Your task to perform on an android device: turn off wifi Image 0: 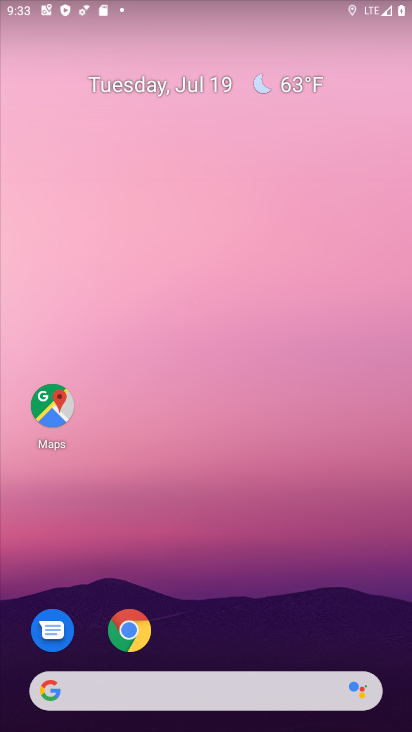
Step 0: drag from (208, 698) to (162, 68)
Your task to perform on an android device: turn off wifi Image 1: 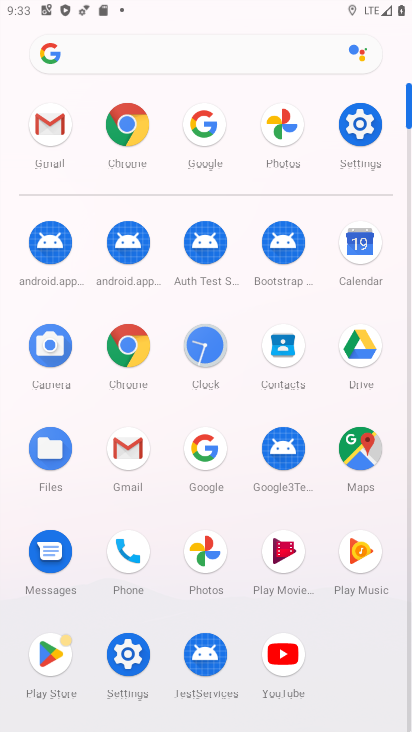
Step 1: click (361, 122)
Your task to perform on an android device: turn off wifi Image 2: 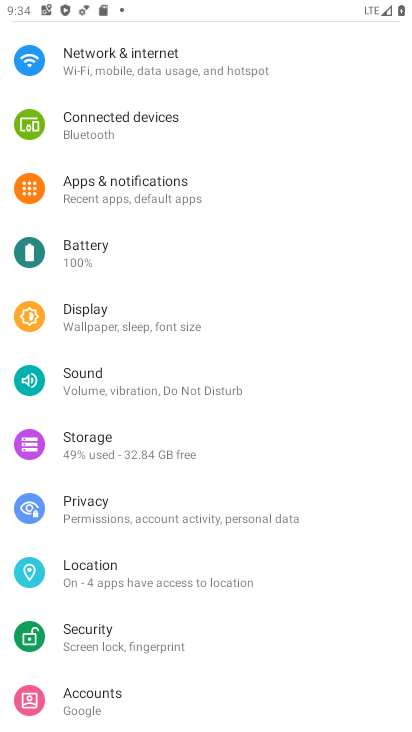
Step 2: click (165, 66)
Your task to perform on an android device: turn off wifi Image 3: 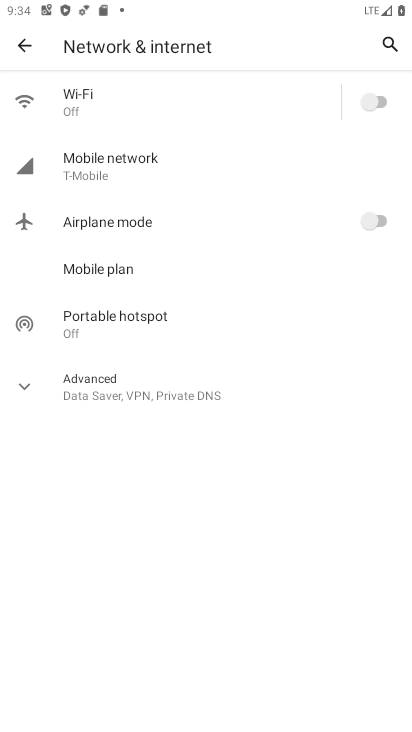
Step 3: task complete